Your task to perform on an android device: read, delete, or share a saved page in the chrome app Image 0: 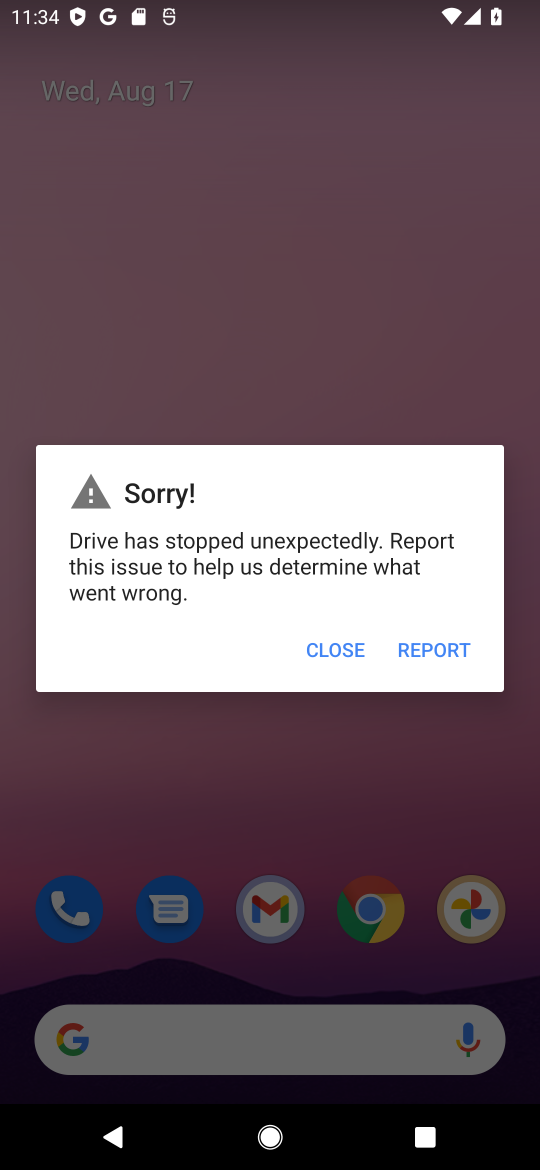
Step 0: press home button
Your task to perform on an android device: read, delete, or share a saved page in the chrome app Image 1: 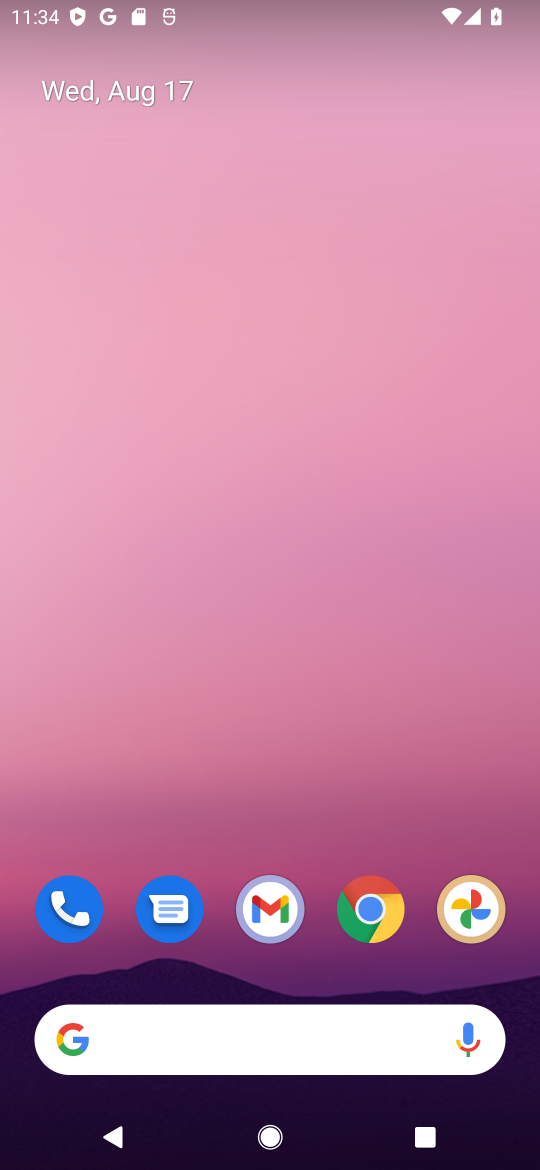
Step 1: click (371, 903)
Your task to perform on an android device: read, delete, or share a saved page in the chrome app Image 2: 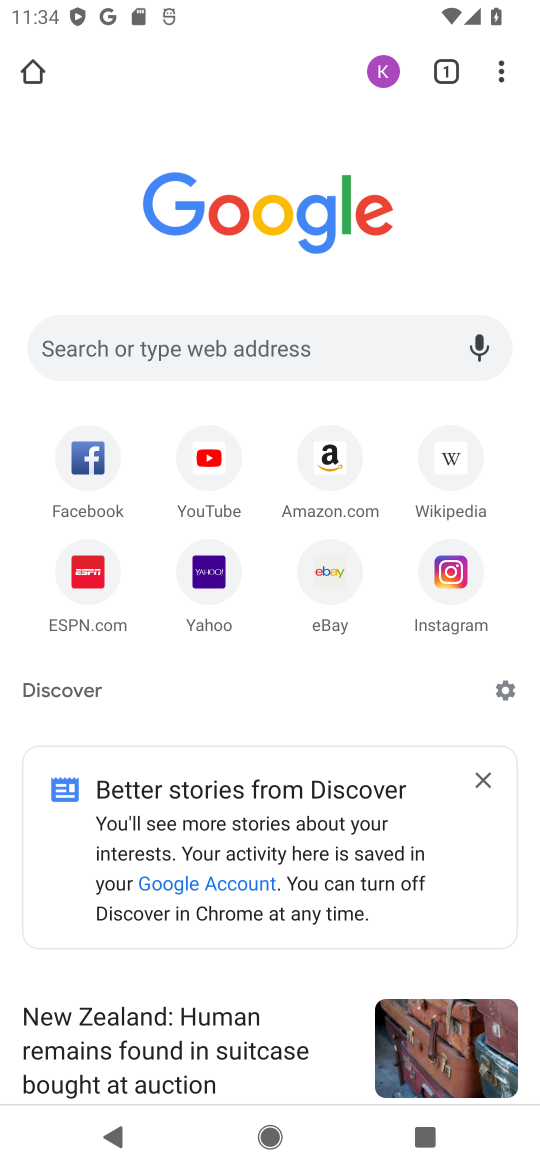
Step 2: click (501, 71)
Your task to perform on an android device: read, delete, or share a saved page in the chrome app Image 3: 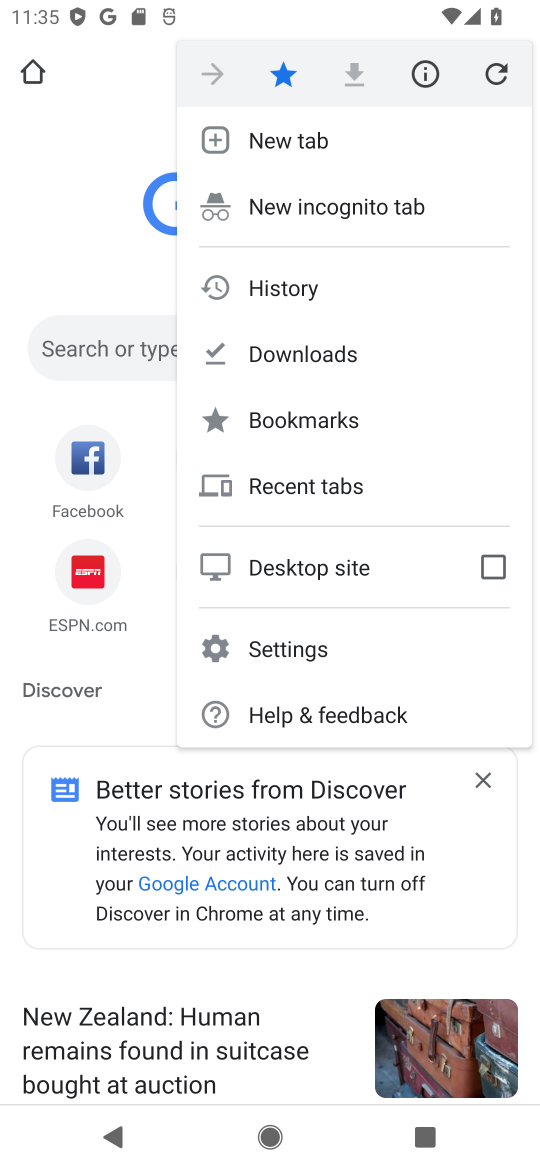
Step 3: click (287, 346)
Your task to perform on an android device: read, delete, or share a saved page in the chrome app Image 4: 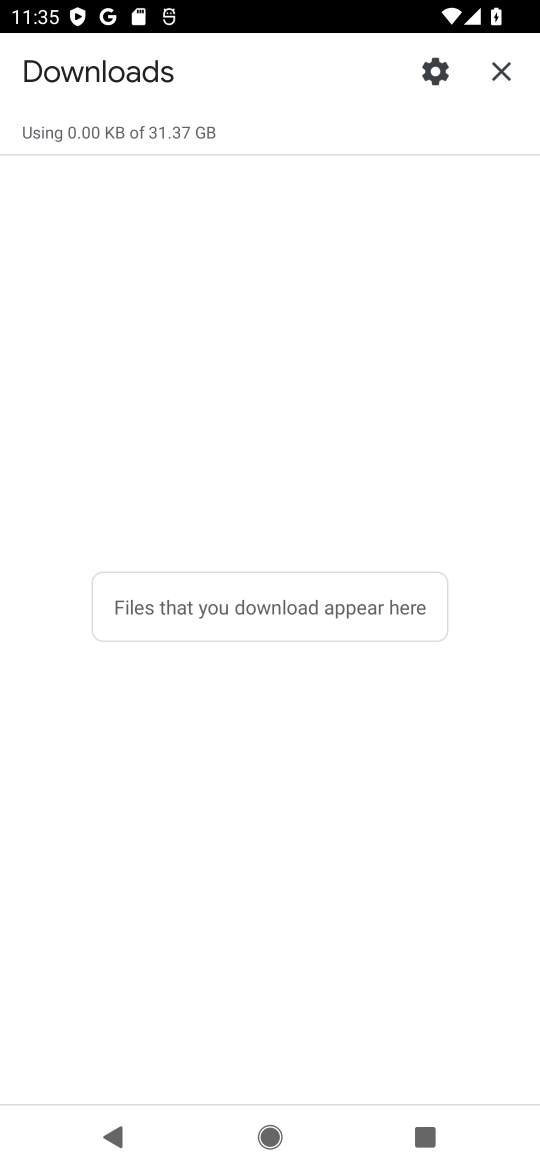
Step 4: task complete